Your task to perform on an android device: change notifications settings Image 0: 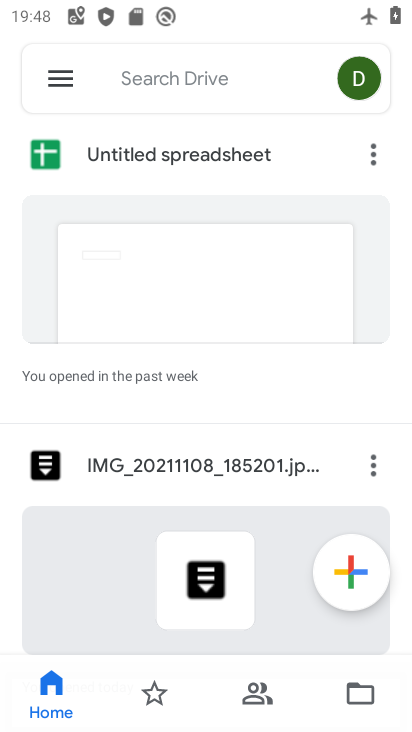
Step 0: press home button
Your task to perform on an android device: change notifications settings Image 1: 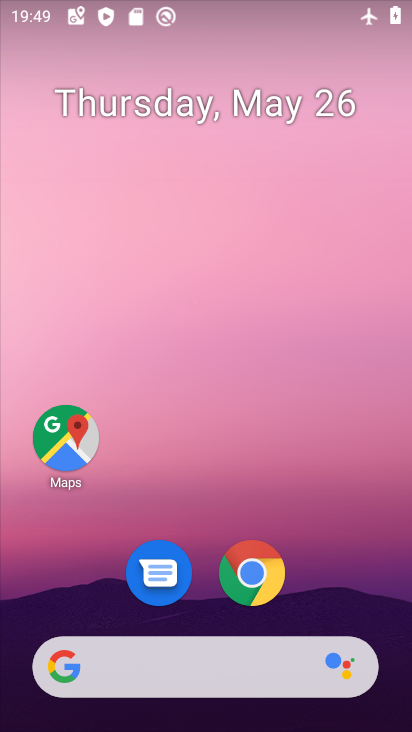
Step 1: drag from (329, 570) to (308, 83)
Your task to perform on an android device: change notifications settings Image 2: 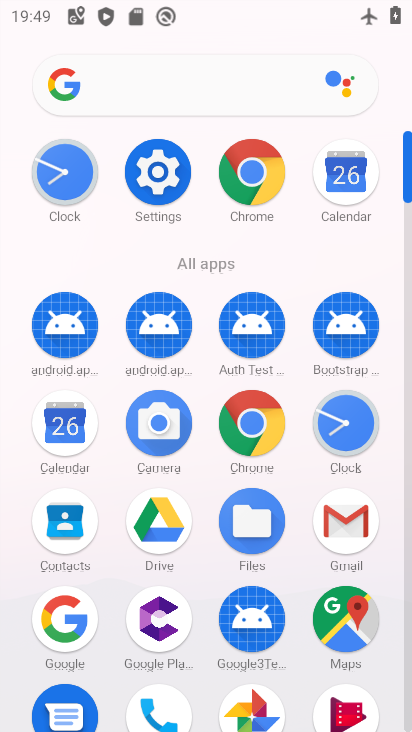
Step 2: click (161, 189)
Your task to perform on an android device: change notifications settings Image 3: 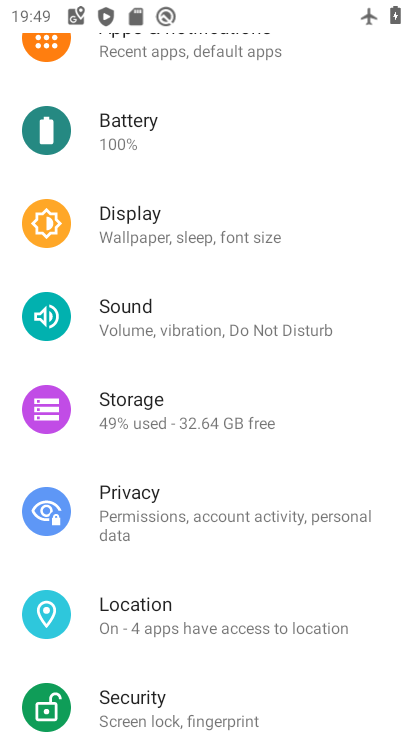
Step 3: drag from (275, 172) to (310, 691)
Your task to perform on an android device: change notifications settings Image 4: 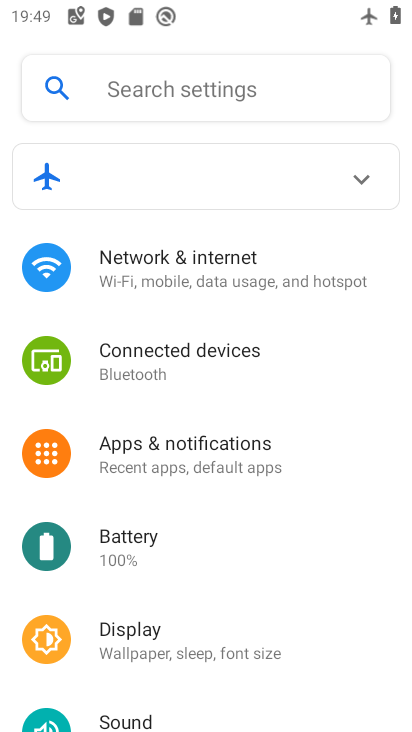
Step 4: click (224, 442)
Your task to perform on an android device: change notifications settings Image 5: 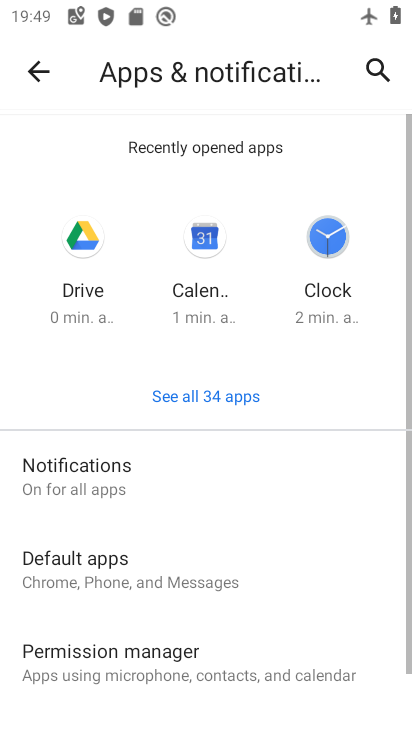
Step 5: click (157, 484)
Your task to perform on an android device: change notifications settings Image 6: 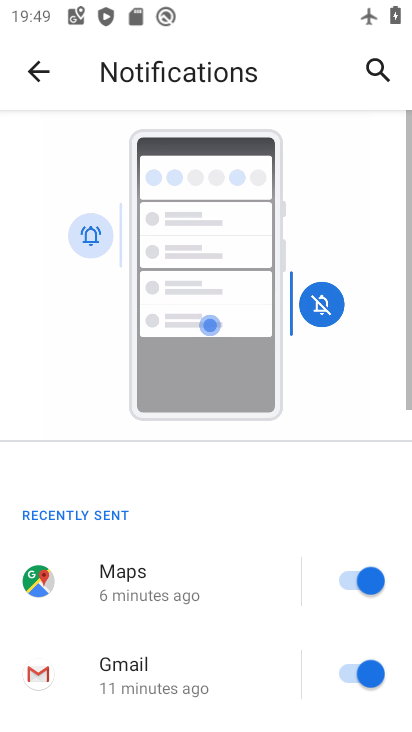
Step 6: drag from (256, 540) to (406, 429)
Your task to perform on an android device: change notifications settings Image 7: 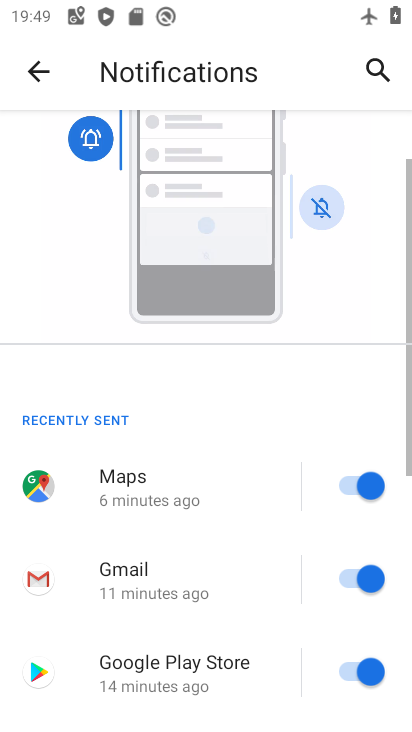
Step 7: drag from (290, 651) to (375, 286)
Your task to perform on an android device: change notifications settings Image 8: 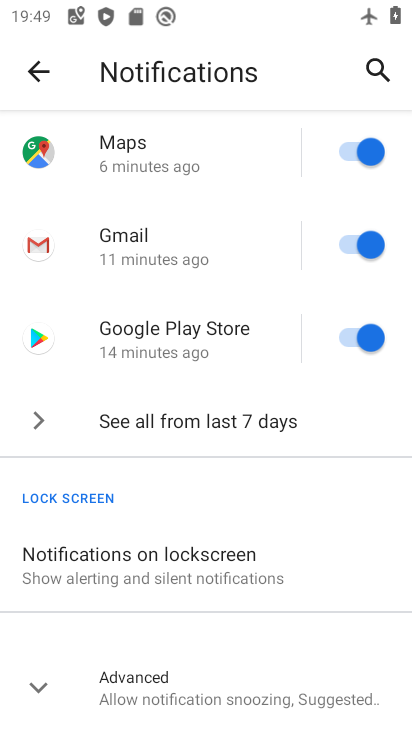
Step 8: click (221, 679)
Your task to perform on an android device: change notifications settings Image 9: 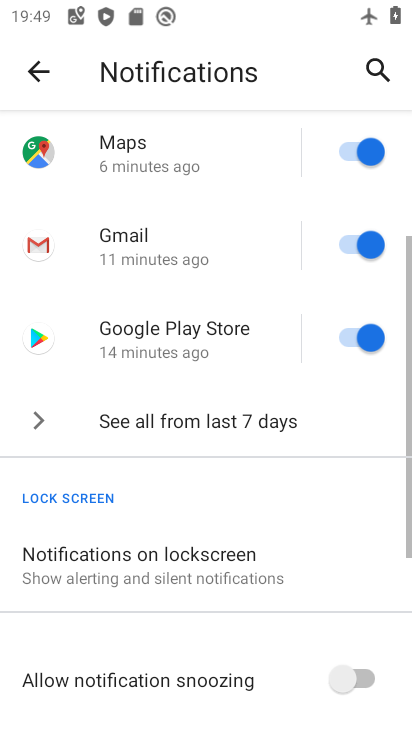
Step 9: drag from (230, 645) to (284, 215)
Your task to perform on an android device: change notifications settings Image 10: 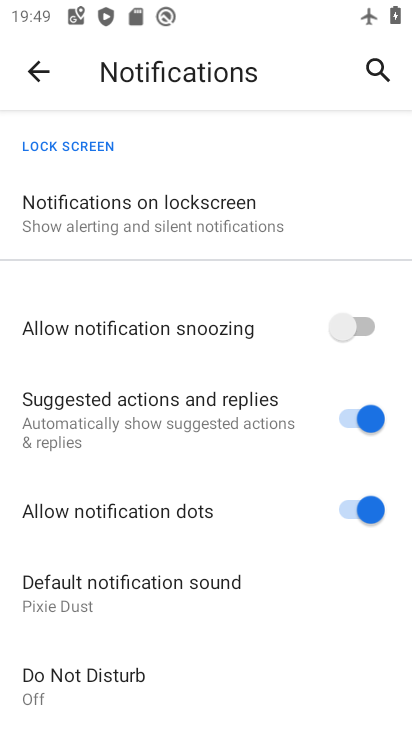
Step 10: click (360, 311)
Your task to perform on an android device: change notifications settings Image 11: 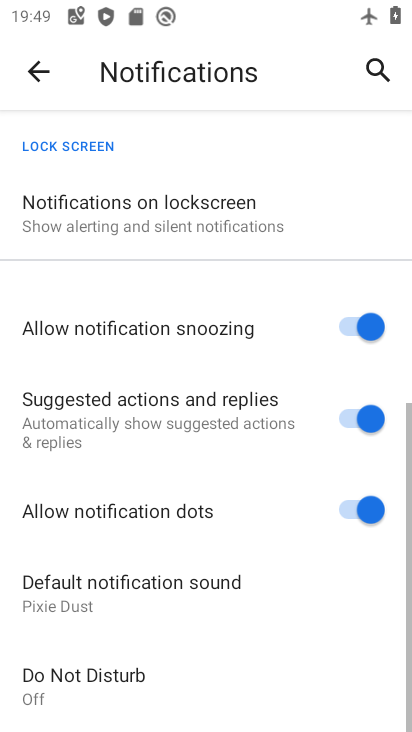
Step 11: task complete